Your task to perform on an android device: turn on airplane mode Image 0: 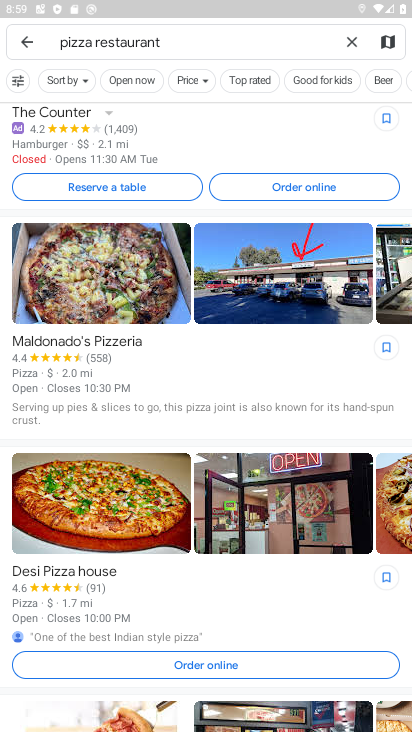
Step 0: press home button
Your task to perform on an android device: turn on airplane mode Image 1: 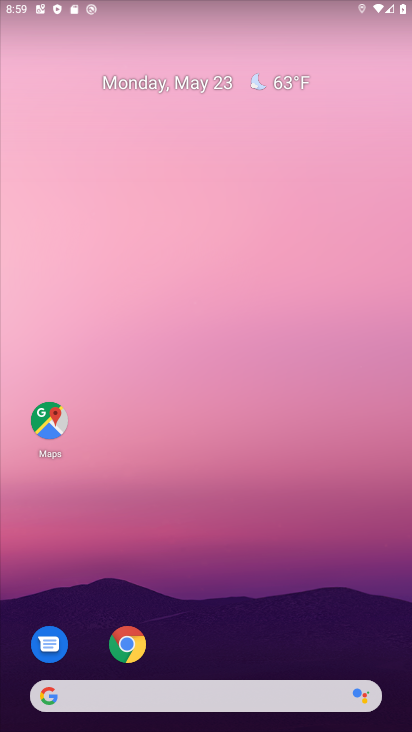
Step 1: drag from (196, 7) to (217, 644)
Your task to perform on an android device: turn on airplane mode Image 2: 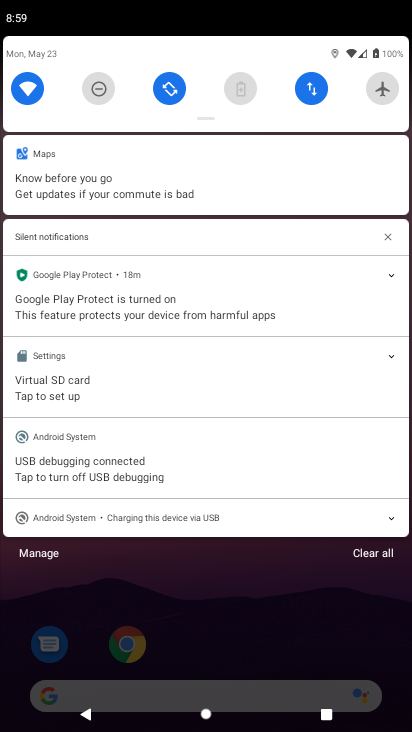
Step 2: click (378, 78)
Your task to perform on an android device: turn on airplane mode Image 3: 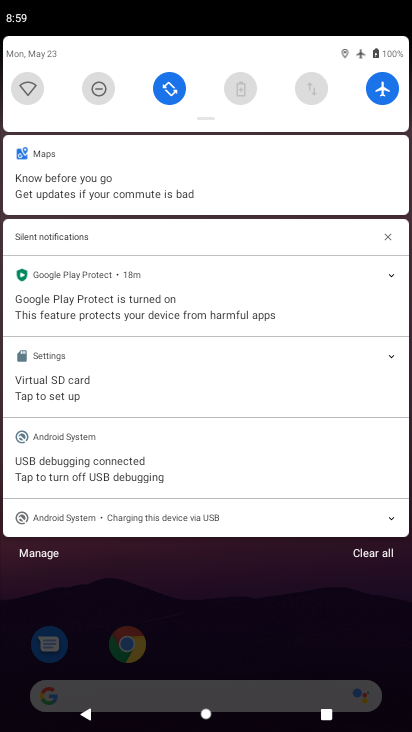
Step 3: task complete